Your task to perform on an android device: What's the weather today? Image 0: 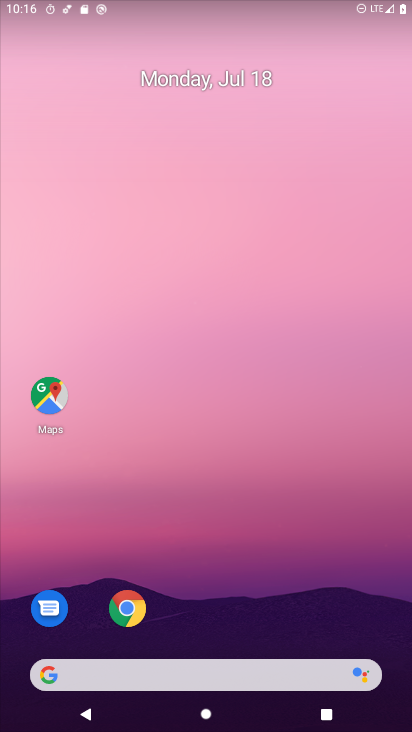
Step 0: drag from (171, 586) to (171, 204)
Your task to perform on an android device: What's the weather today? Image 1: 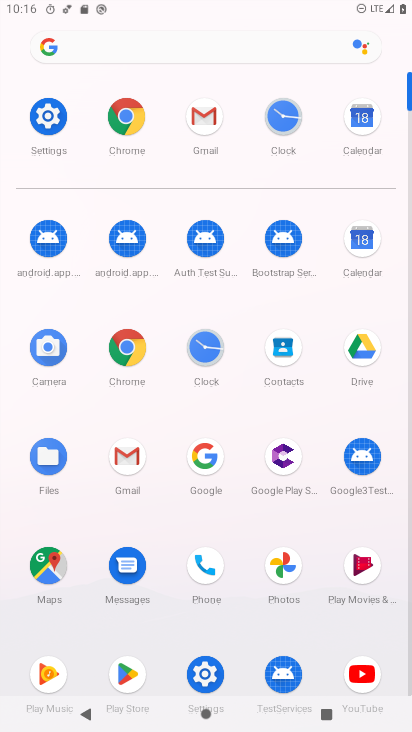
Step 1: click (214, 462)
Your task to perform on an android device: What's the weather today? Image 2: 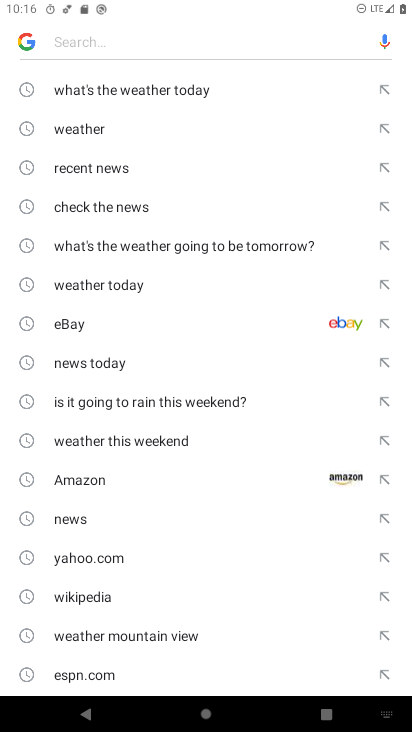
Step 2: click (71, 132)
Your task to perform on an android device: What's the weather today? Image 3: 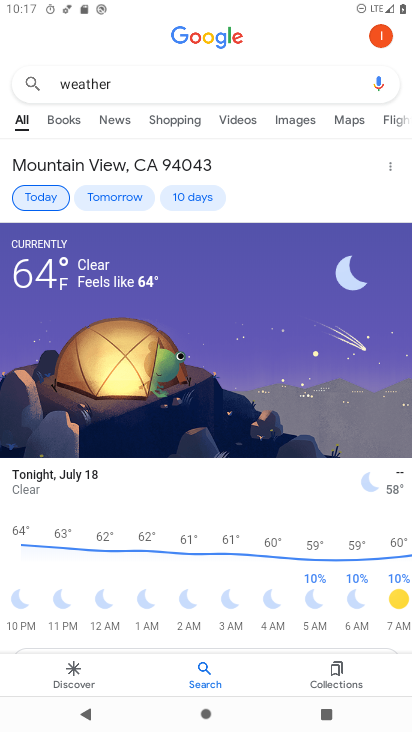
Step 3: task complete